Your task to perform on an android device: Go to wifi settings Image 0: 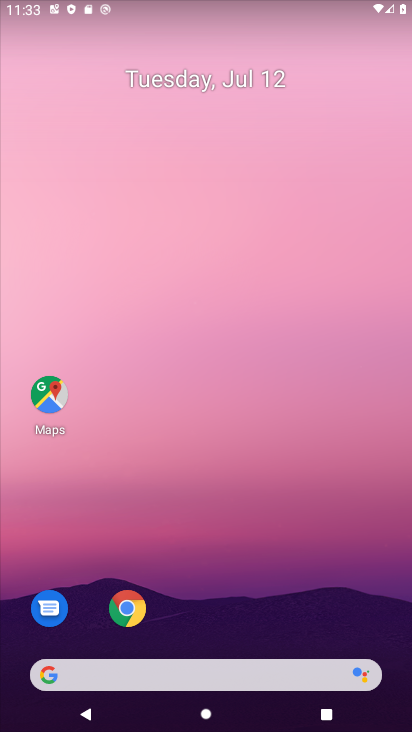
Step 0: drag from (245, 699) to (255, 420)
Your task to perform on an android device: Go to wifi settings Image 1: 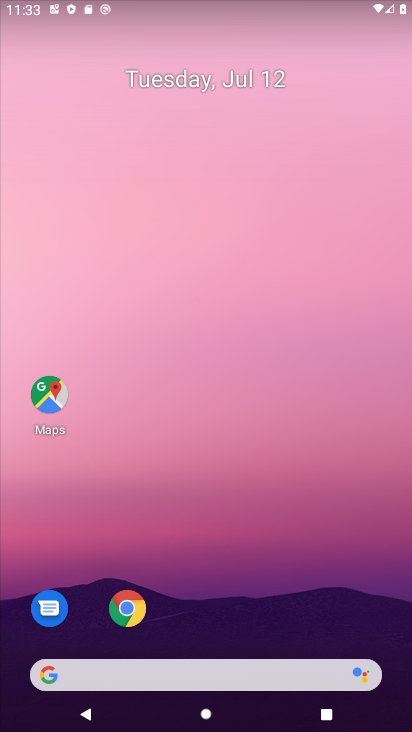
Step 1: drag from (233, 727) to (265, 91)
Your task to perform on an android device: Go to wifi settings Image 2: 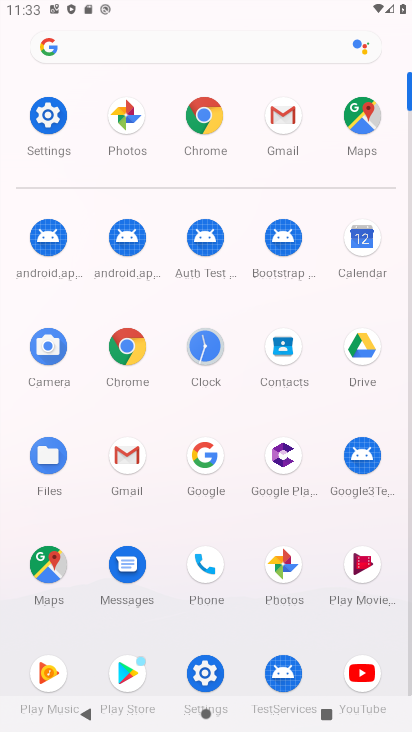
Step 2: click (42, 121)
Your task to perform on an android device: Go to wifi settings Image 3: 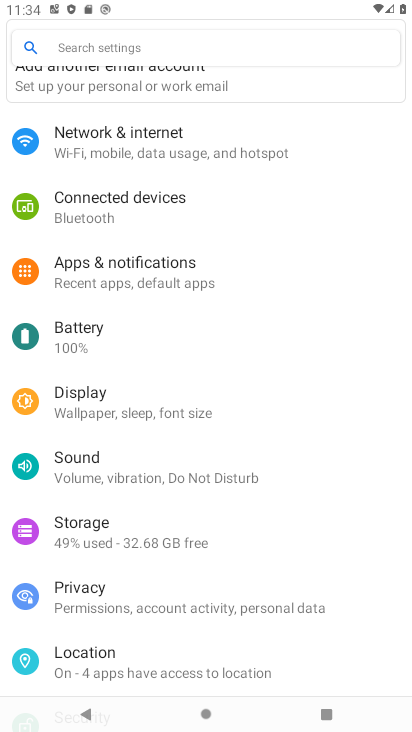
Step 3: click (109, 149)
Your task to perform on an android device: Go to wifi settings Image 4: 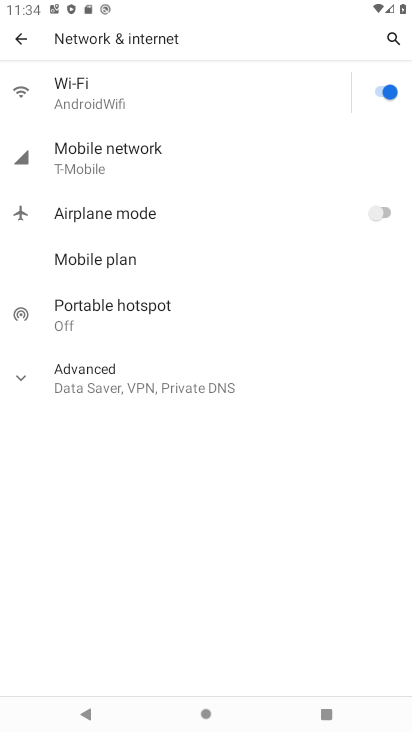
Step 4: click (83, 76)
Your task to perform on an android device: Go to wifi settings Image 5: 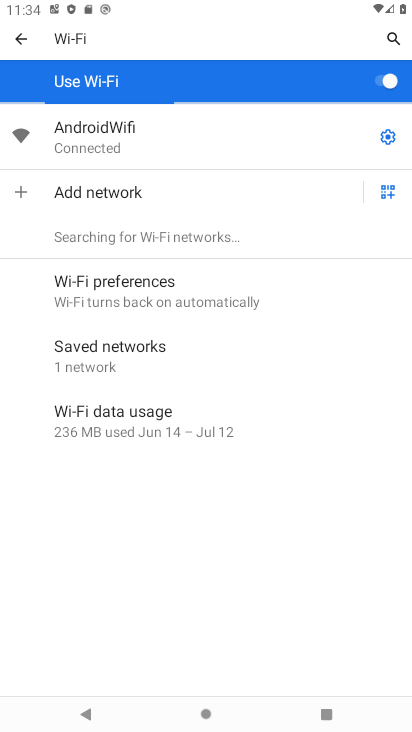
Step 5: task complete